Your task to perform on an android device: open app "Microsoft Outlook" (install if not already installed) and go to login screen Image 0: 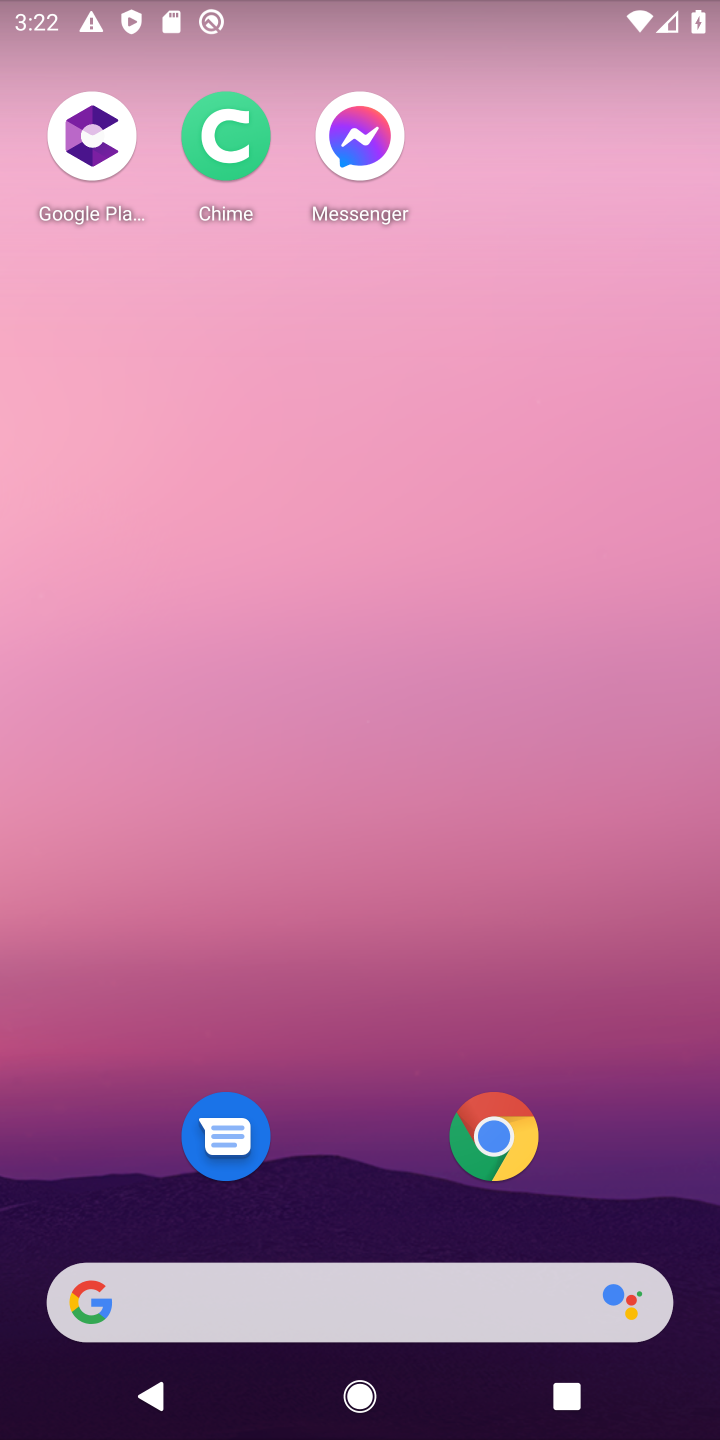
Step 0: drag from (328, 1159) to (343, 344)
Your task to perform on an android device: open app "Microsoft Outlook" (install if not already installed) and go to login screen Image 1: 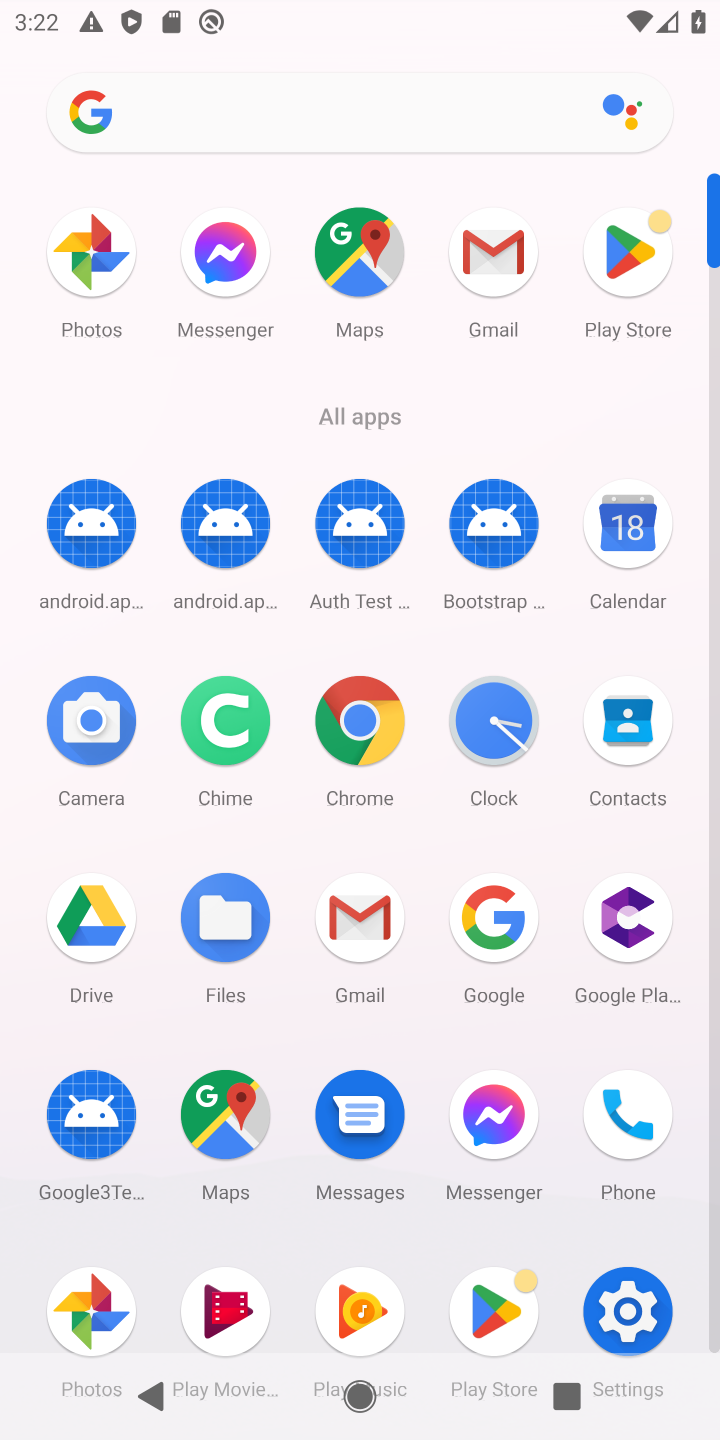
Step 1: click (651, 283)
Your task to perform on an android device: open app "Microsoft Outlook" (install if not already installed) and go to login screen Image 2: 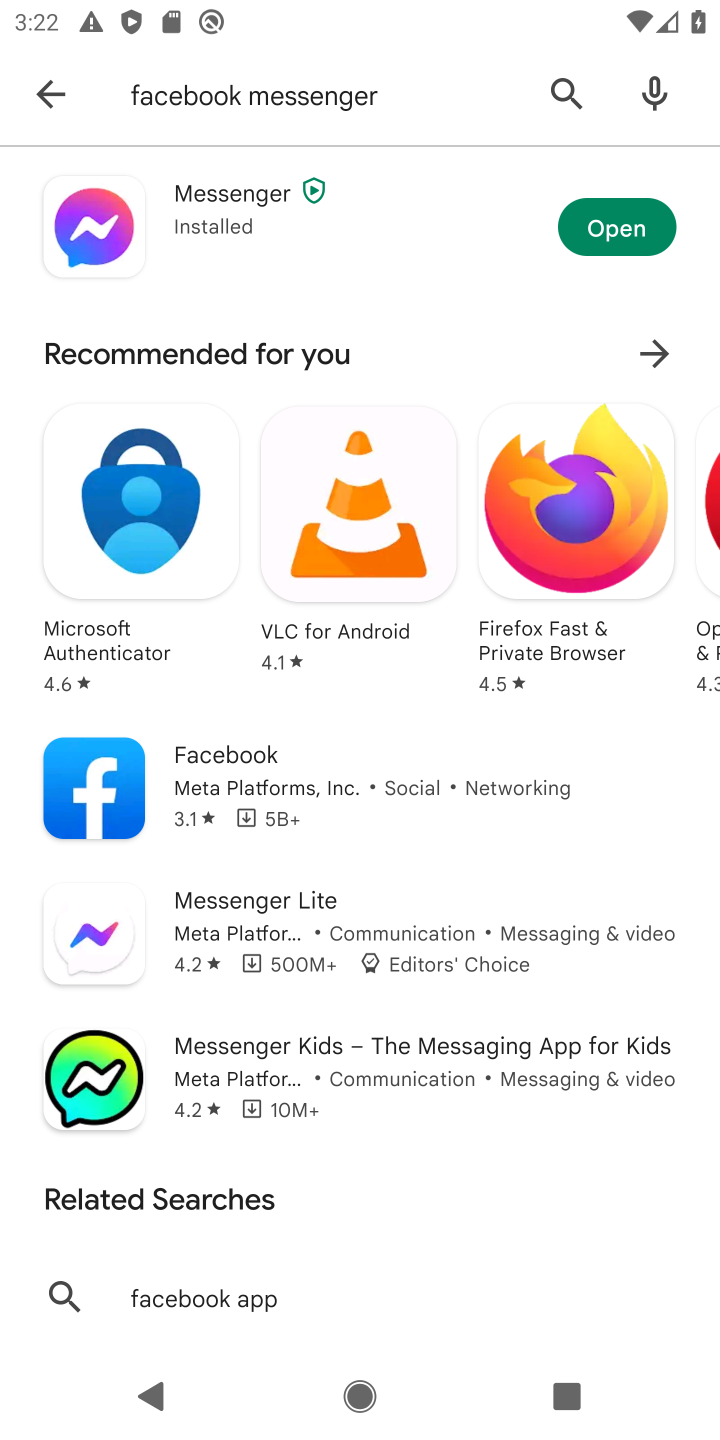
Step 2: click (367, 87)
Your task to perform on an android device: open app "Microsoft Outlook" (install if not already installed) and go to login screen Image 3: 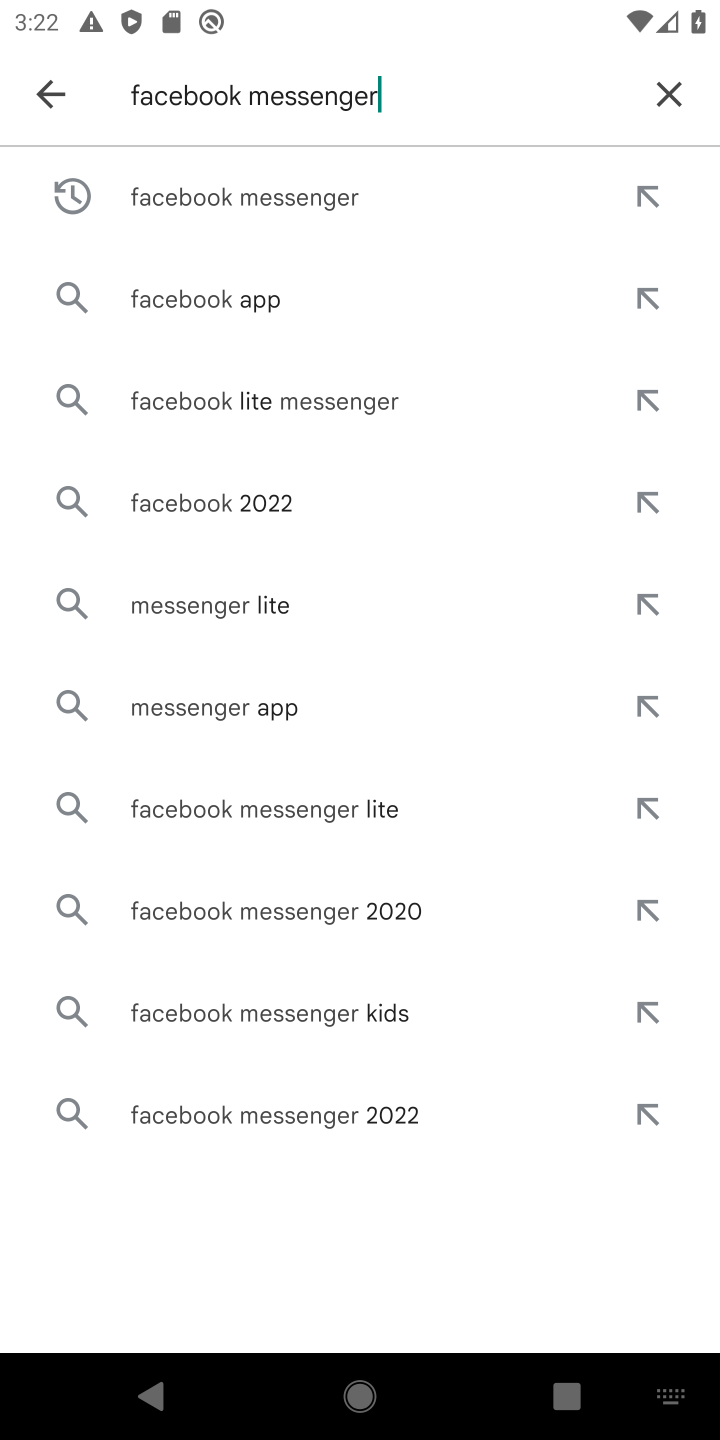
Step 3: click (657, 96)
Your task to perform on an android device: open app "Microsoft Outlook" (install if not already installed) and go to login screen Image 4: 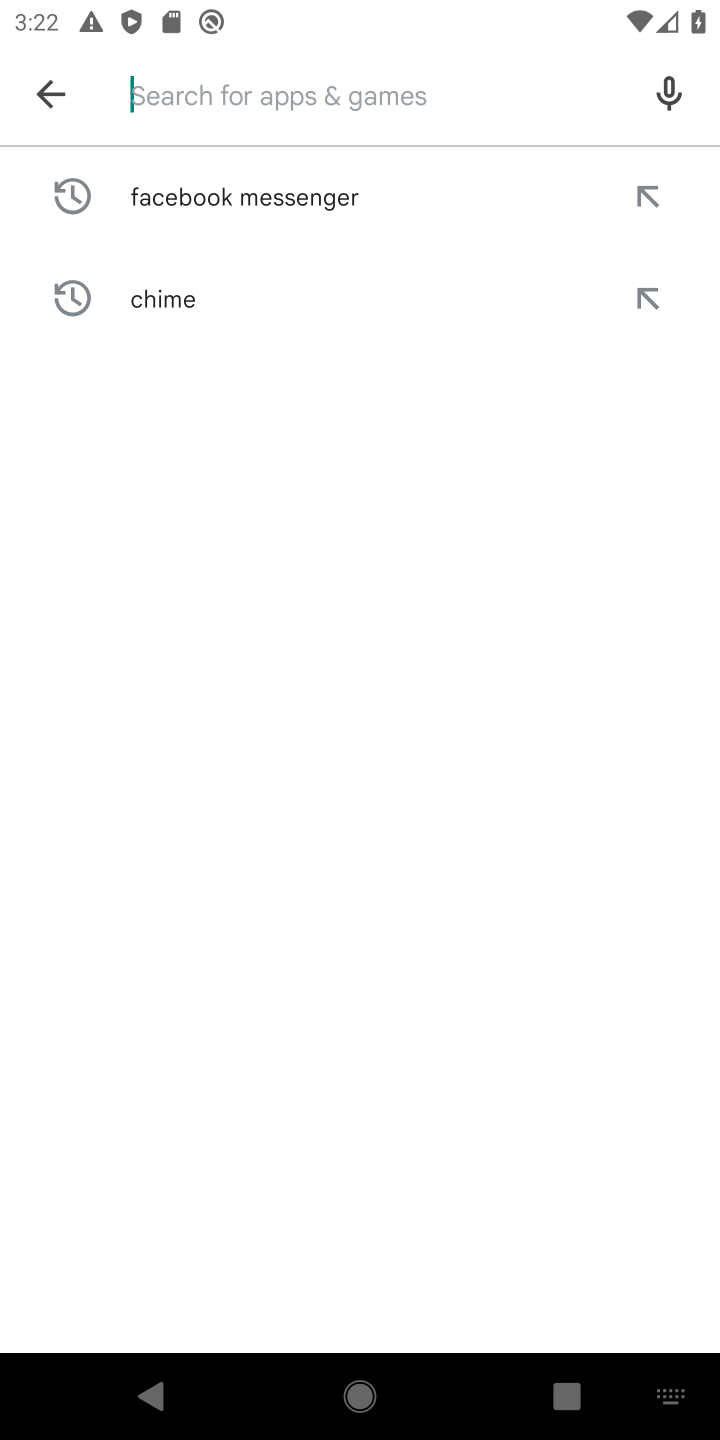
Step 4: type "microsoft Outlook"
Your task to perform on an android device: open app "Microsoft Outlook" (install if not already installed) and go to login screen Image 5: 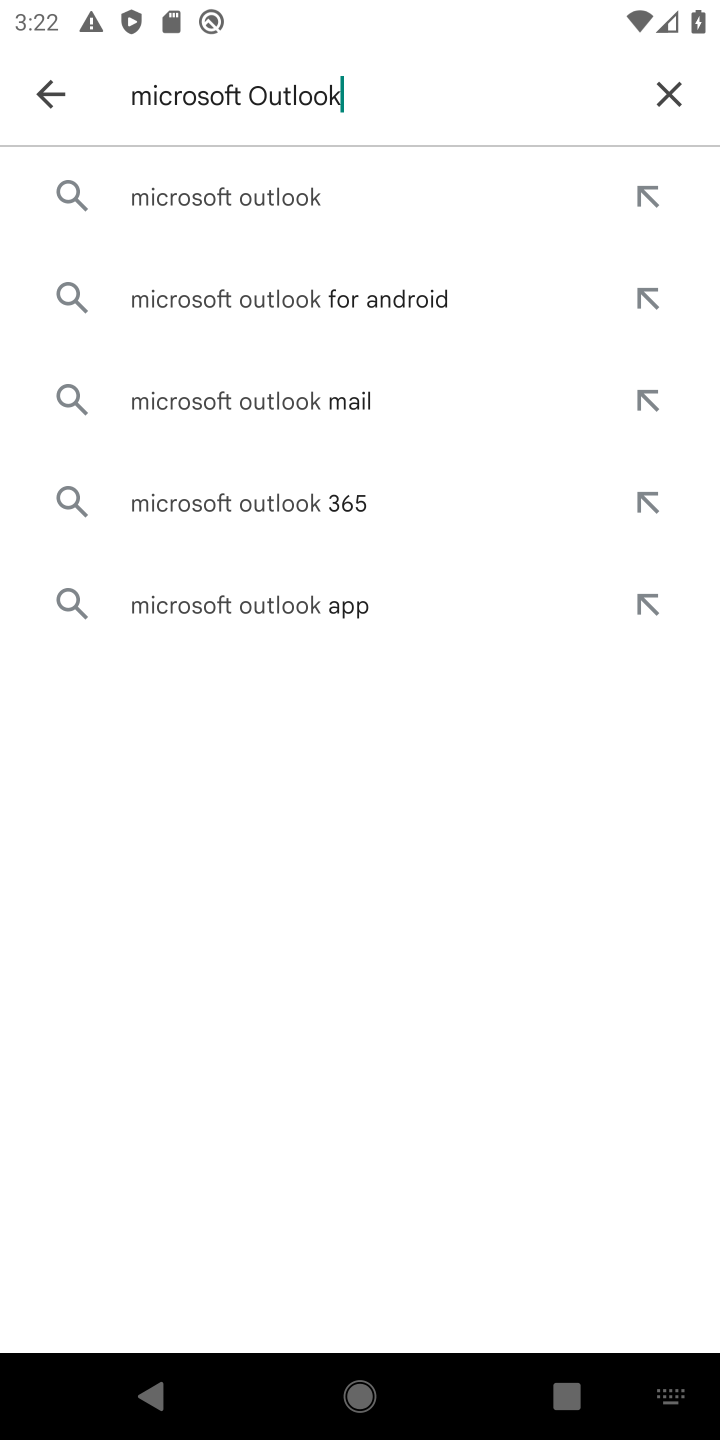
Step 5: click (296, 191)
Your task to perform on an android device: open app "Microsoft Outlook" (install if not already installed) and go to login screen Image 6: 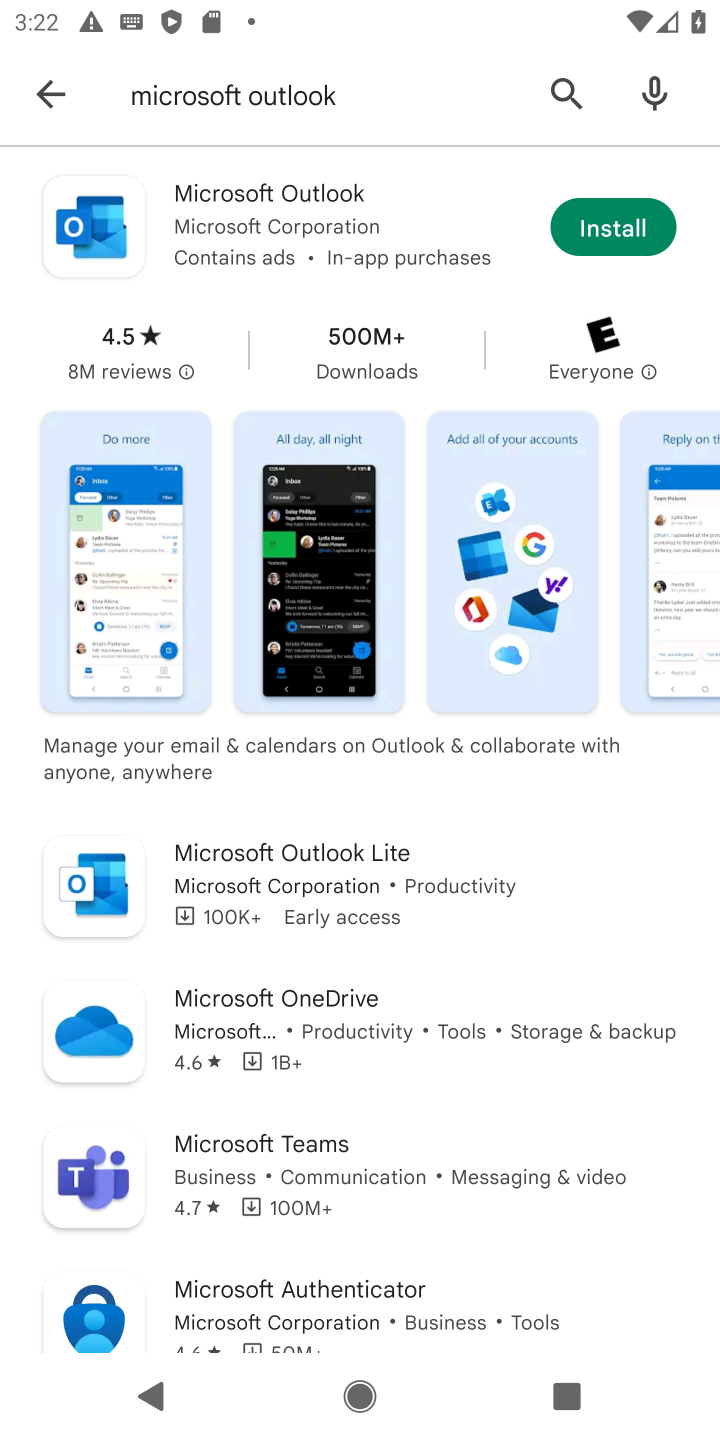
Step 6: click (584, 251)
Your task to perform on an android device: open app "Microsoft Outlook" (install if not already installed) and go to login screen Image 7: 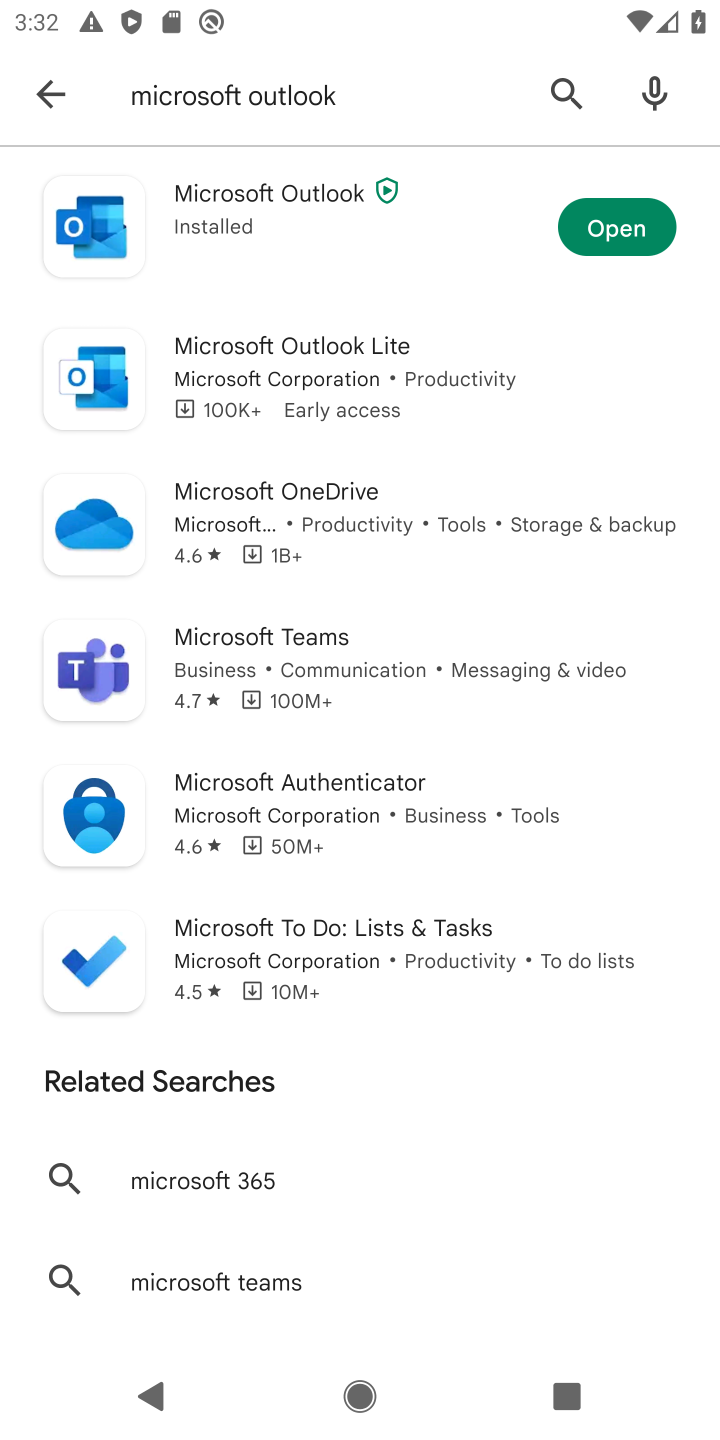
Step 7: click (597, 243)
Your task to perform on an android device: open app "Microsoft Outlook" (install if not already installed) and go to login screen Image 8: 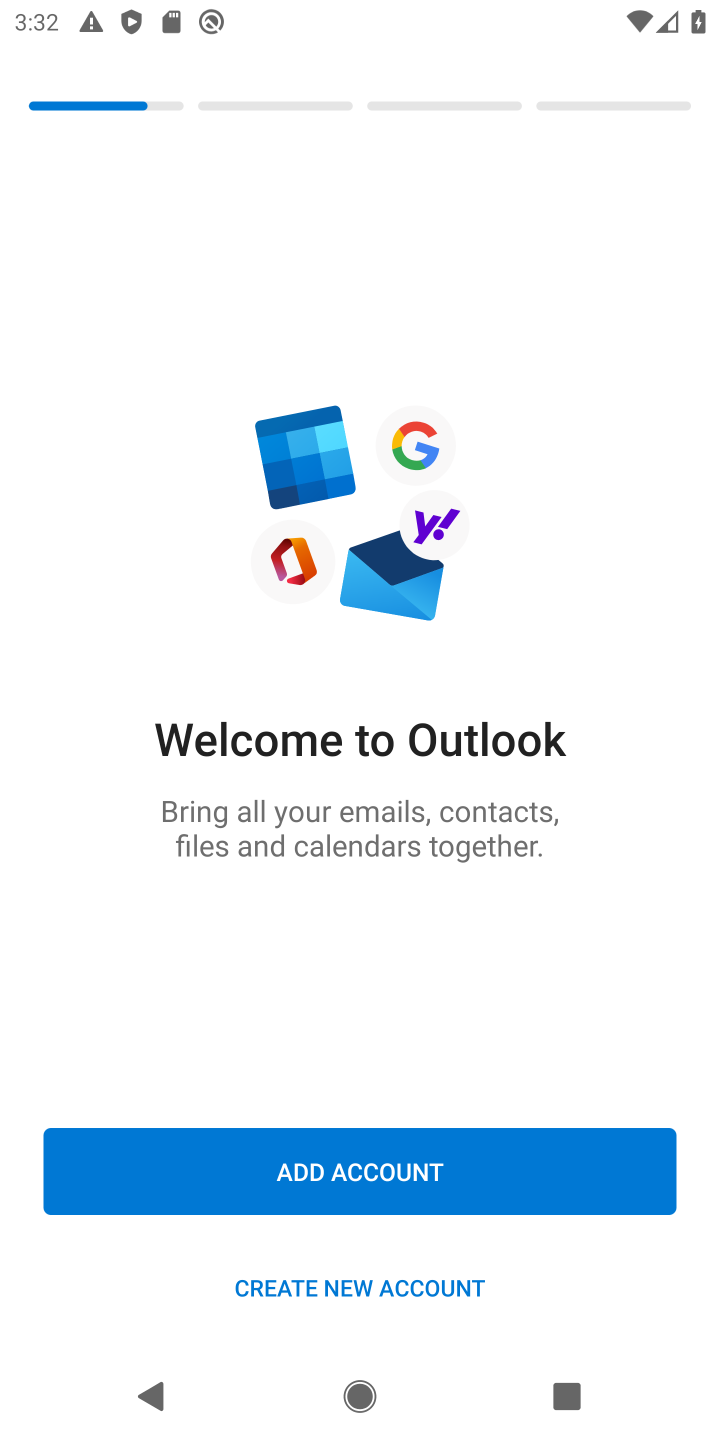
Step 8: click (404, 1174)
Your task to perform on an android device: open app "Microsoft Outlook" (install if not already installed) and go to login screen Image 9: 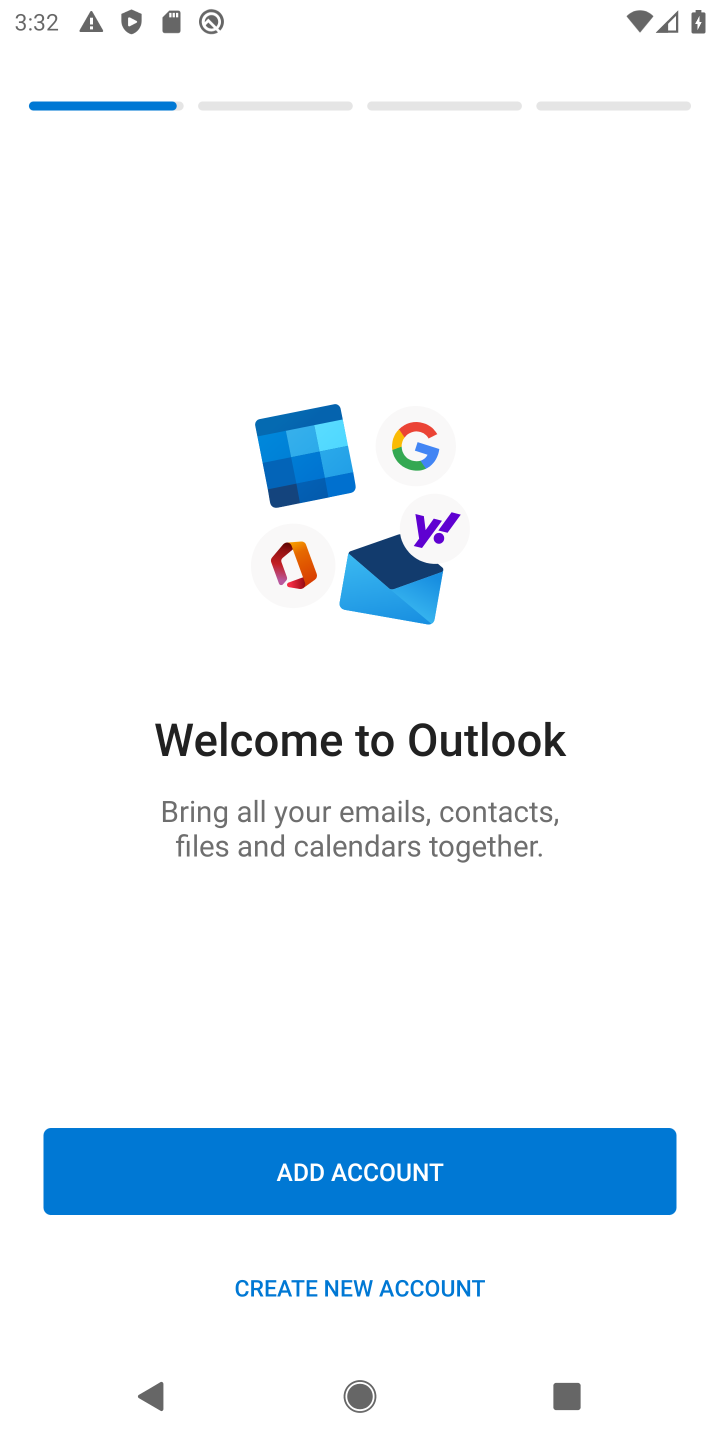
Step 9: task complete